Your task to perform on an android device: Open Google Chrome Image 0: 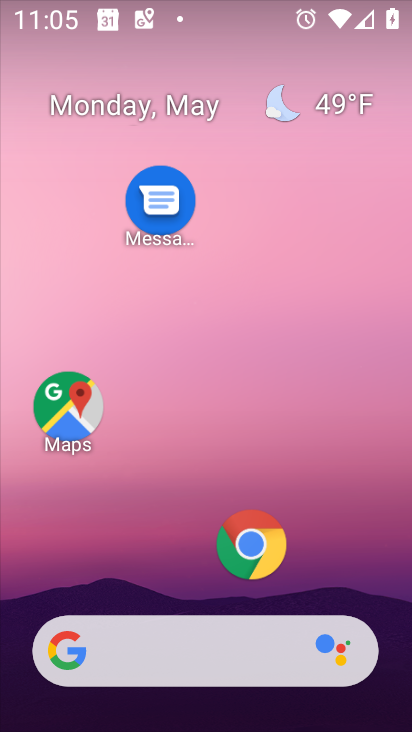
Step 0: click (254, 542)
Your task to perform on an android device: Open Google Chrome Image 1: 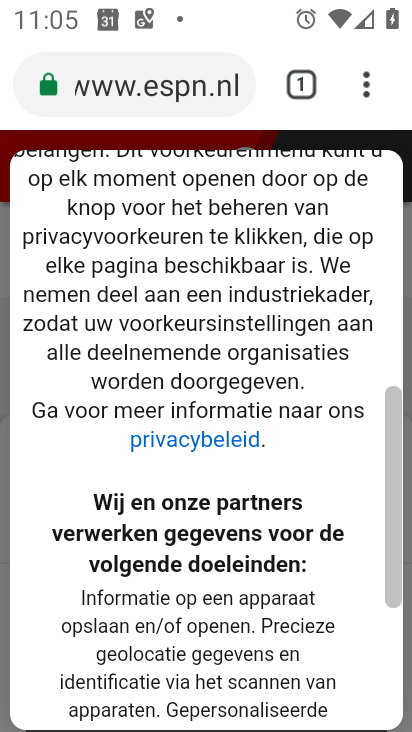
Step 1: task complete